Your task to perform on an android device: Open calendar and show me the first week of next month Image 0: 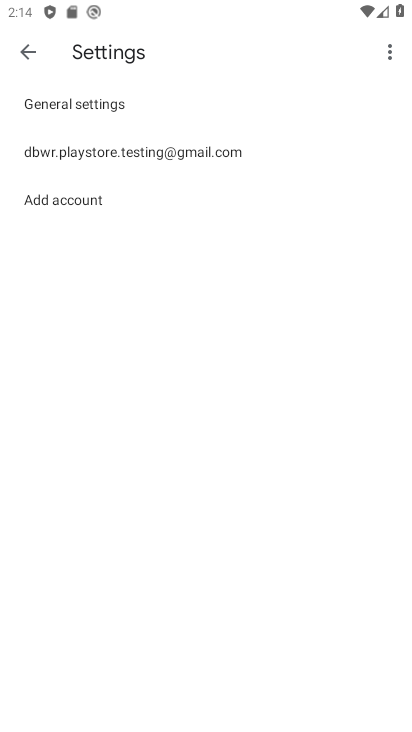
Step 0: press back button
Your task to perform on an android device: Open calendar and show me the first week of next month Image 1: 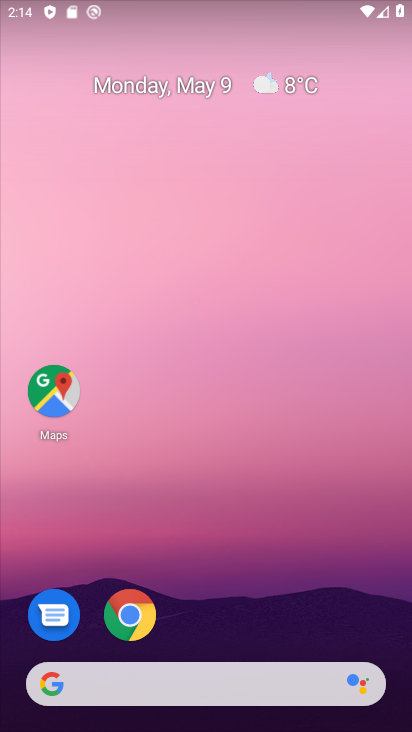
Step 1: drag from (235, 461) to (286, 145)
Your task to perform on an android device: Open calendar and show me the first week of next month Image 2: 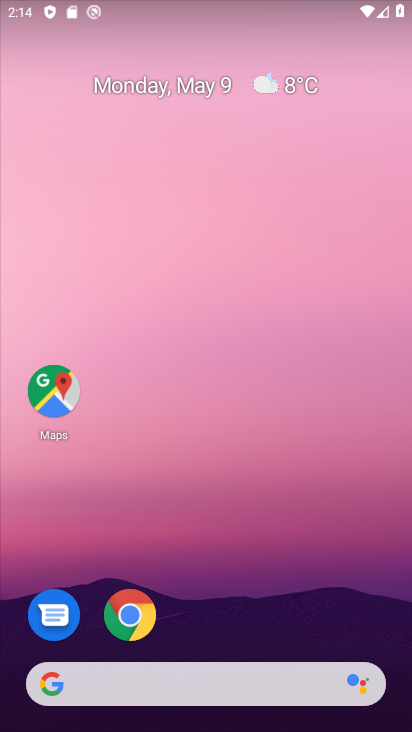
Step 2: drag from (203, 628) to (269, 406)
Your task to perform on an android device: Open calendar and show me the first week of next month Image 3: 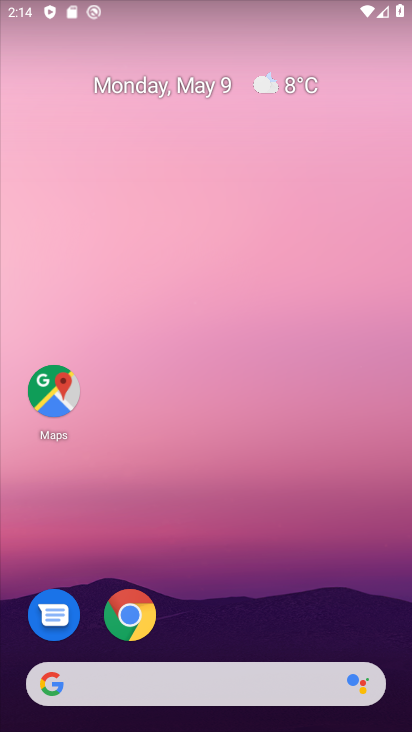
Step 3: drag from (254, 660) to (328, 490)
Your task to perform on an android device: Open calendar and show me the first week of next month Image 4: 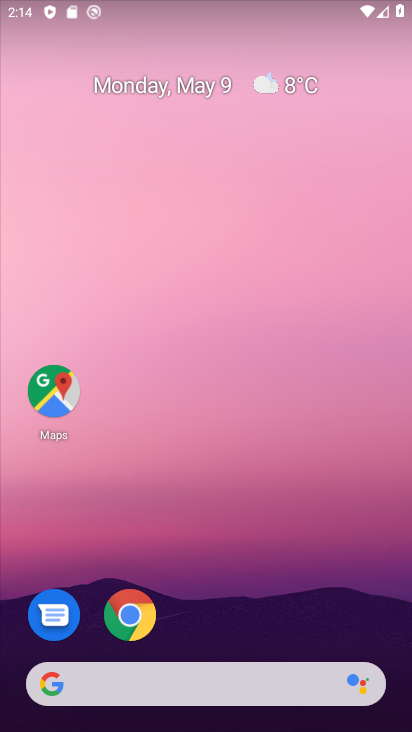
Step 4: drag from (223, 649) to (246, 250)
Your task to perform on an android device: Open calendar and show me the first week of next month Image 5: 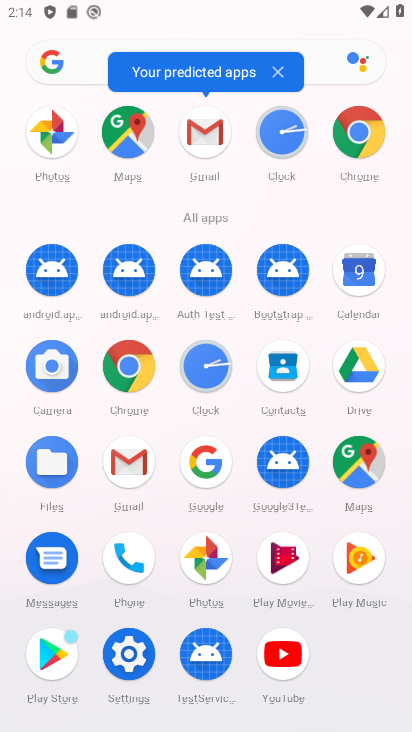
Step 5: click (356, 282)
Your task to perform on an android device: Open calendar and show me the first week of next month Image 6: 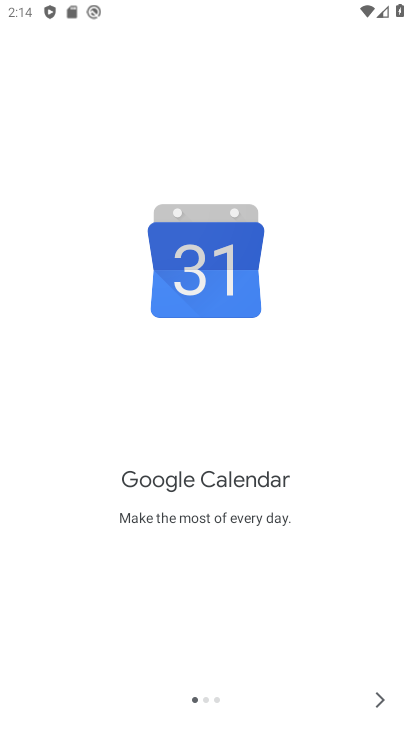
Step 6: click (378, 721)
Your task to perform on an android device: Open calendar and show me the first week of next month Image 7: 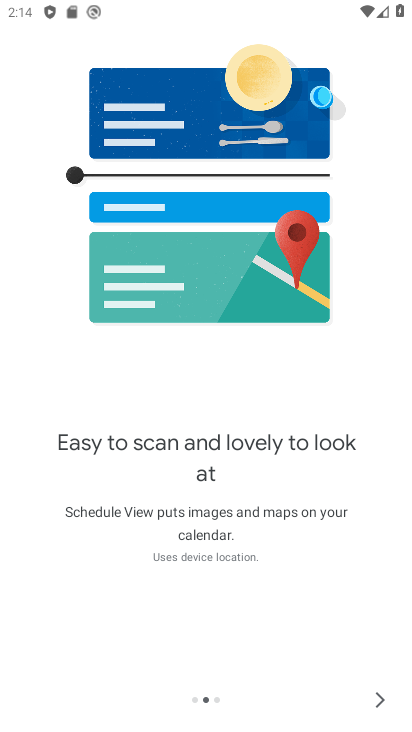
Step 7: click (378, 721)
Your task to perform on an android device: Open calendar and show me the first week of next month Image 8: 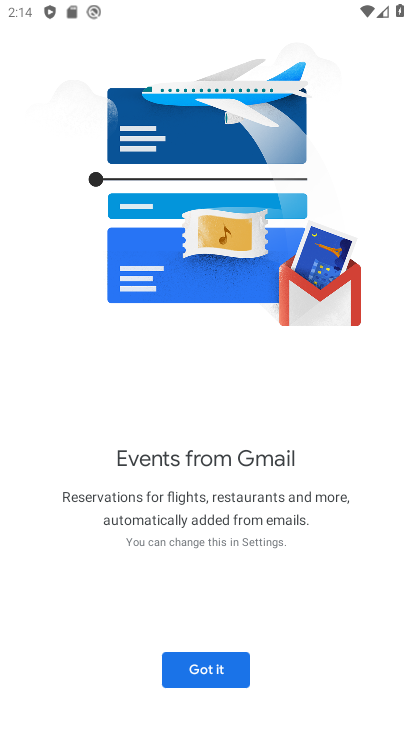
Step 8: click (217, 686)
Your task to perform on an android device: Open calendar and show me the first week of next month Image 9: 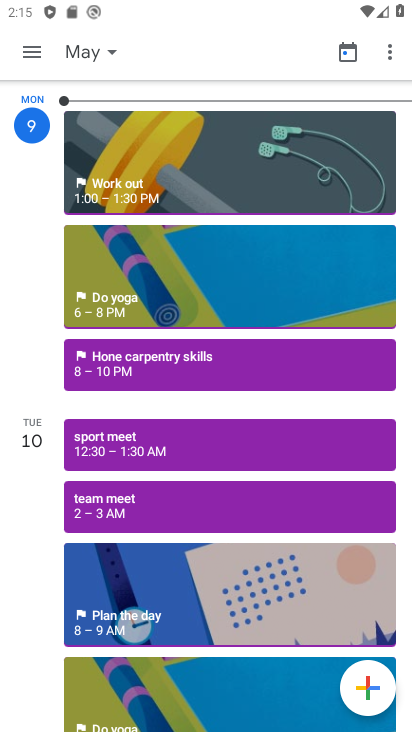
Step 9: click (104, 49)
Your task to perform on an android device: Open calendar and show me the first week of next month Image 10: 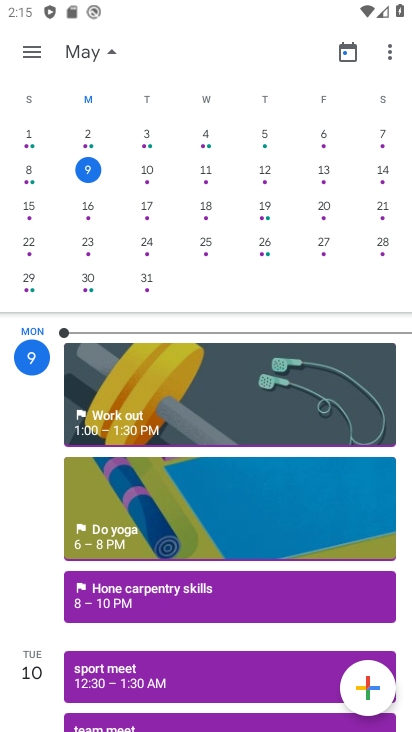
Step 10: drag from (394, 262) to (21, 226)
Your task to perform on an android device: Open calendar and show me the first week of next month Image 11: 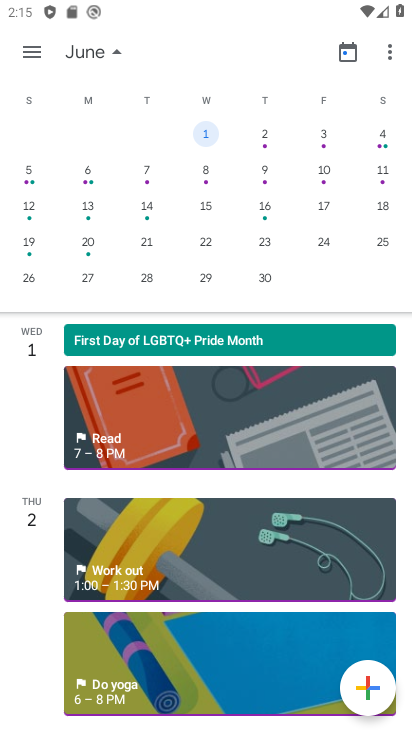
Step 11: click (27, 172)
Your task to perform on an android device: Open calendar and show me the first week of next month Image 12: 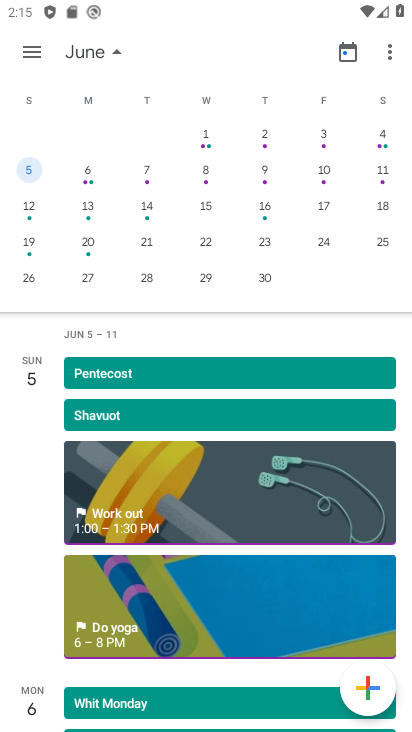
Step 12: click (34, 57)
Your task to perform on an android device: Open calendar and show me the first week of next month Image 13: 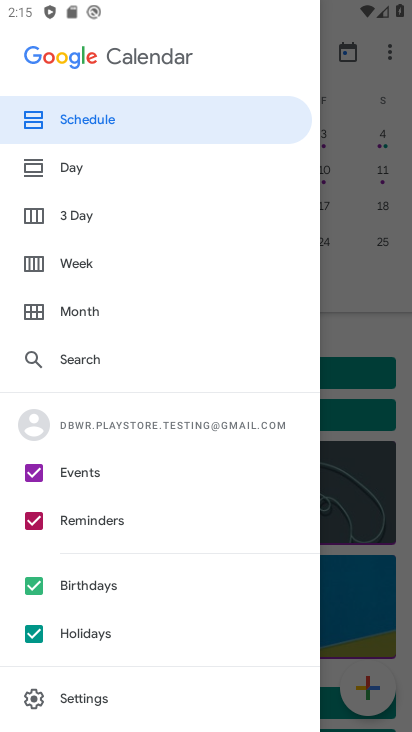
Step 13: click (163, 271)
Your task to perform on an android device: Open calendar and show me the first week of next month Image 14: 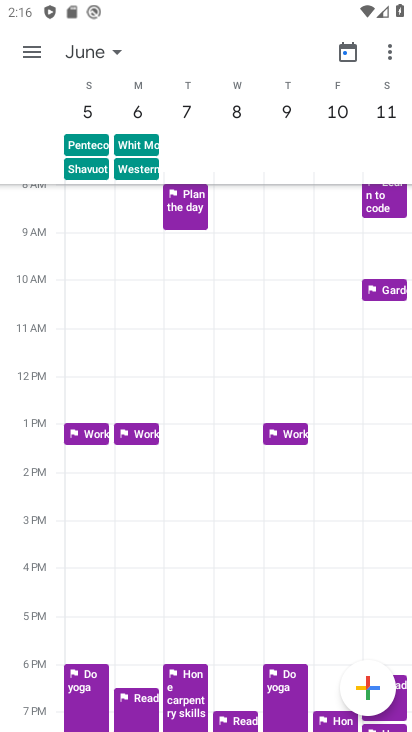
Step 14: task complete